Your task to perform on an android device: open chrome privacy settings Image 0: 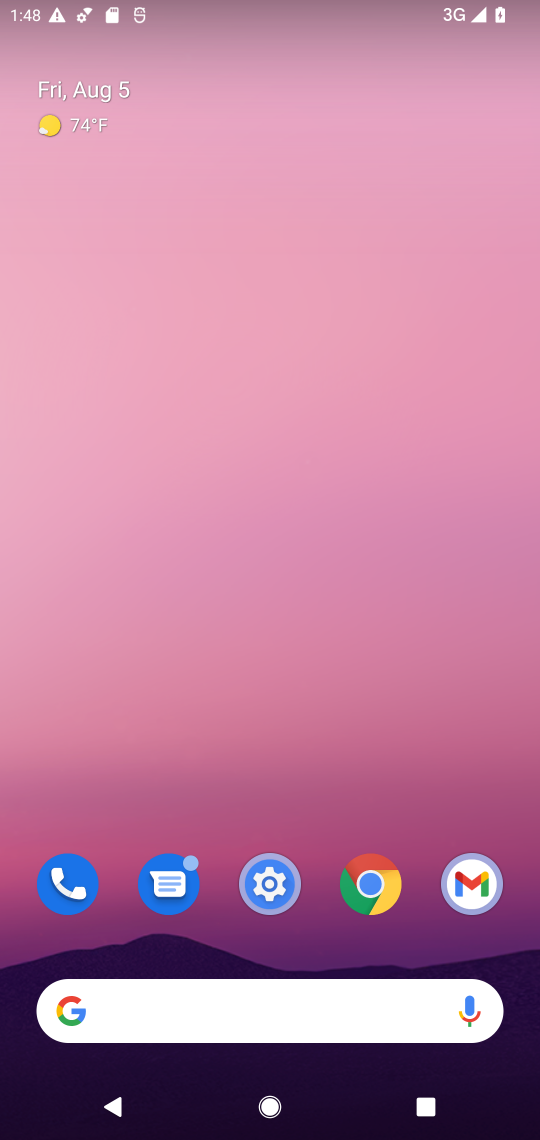
Step 0: drag from (458, 943) to (264, 66)
Your task to perform on an android device: open chrome privacy settings Image 1: 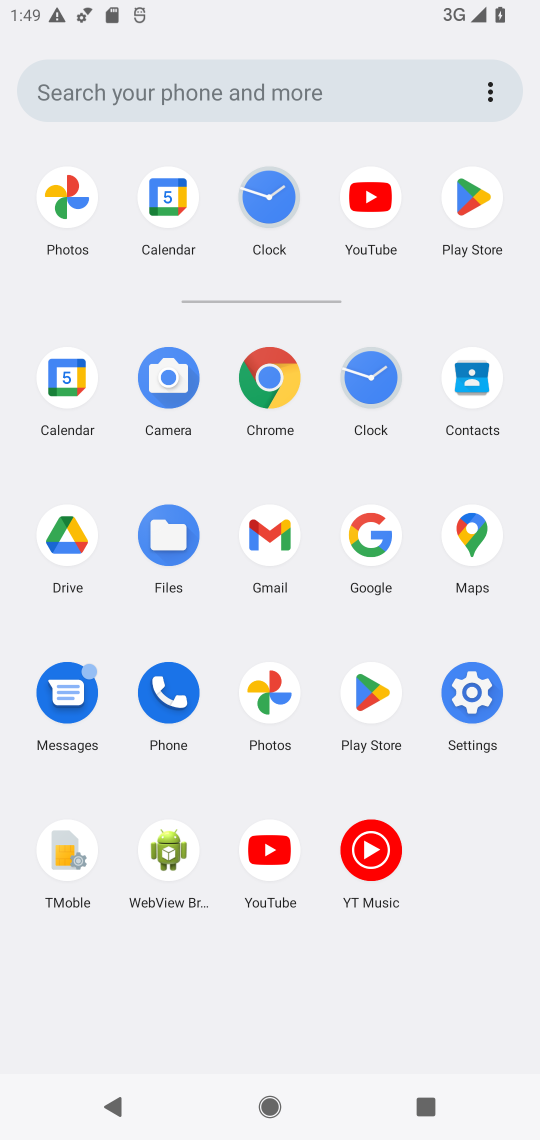
Step 1: click (271, 368)
Your task to perform on an android device: open chrome privacy settings Image 2: 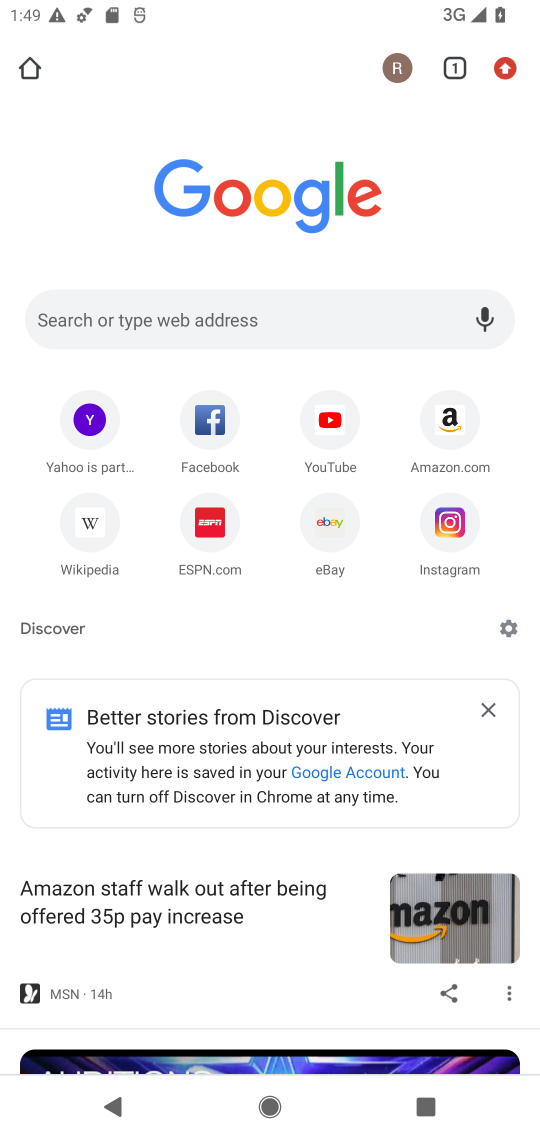
Step 2: click (502, 61)
Your task to perform on an android device: open chrome privacy settings Image 3: 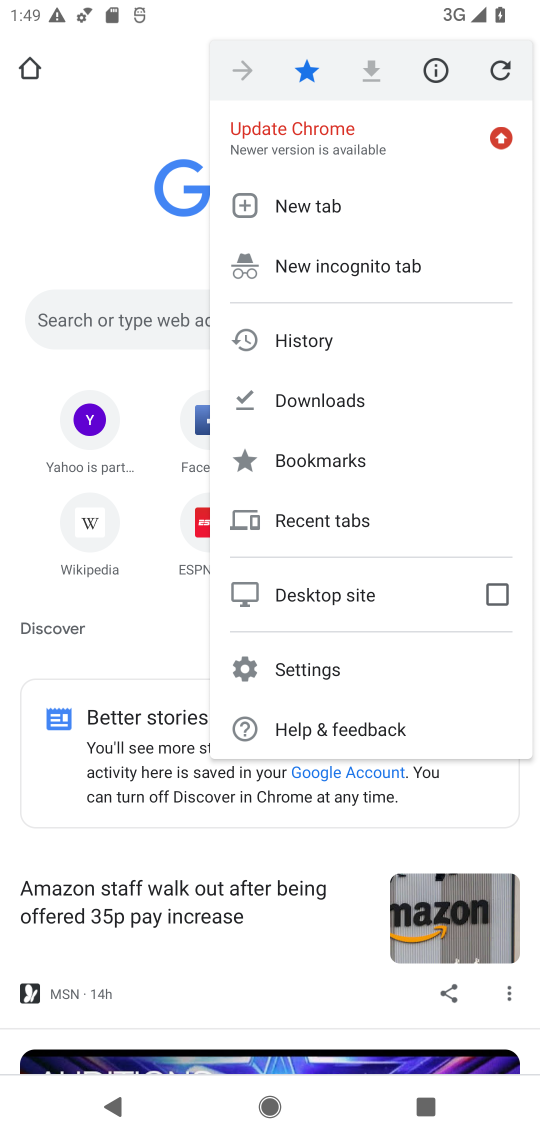
Step 3: click (351, 663)
Your task to perform on an android device: open chrome privacy settings Image 4: 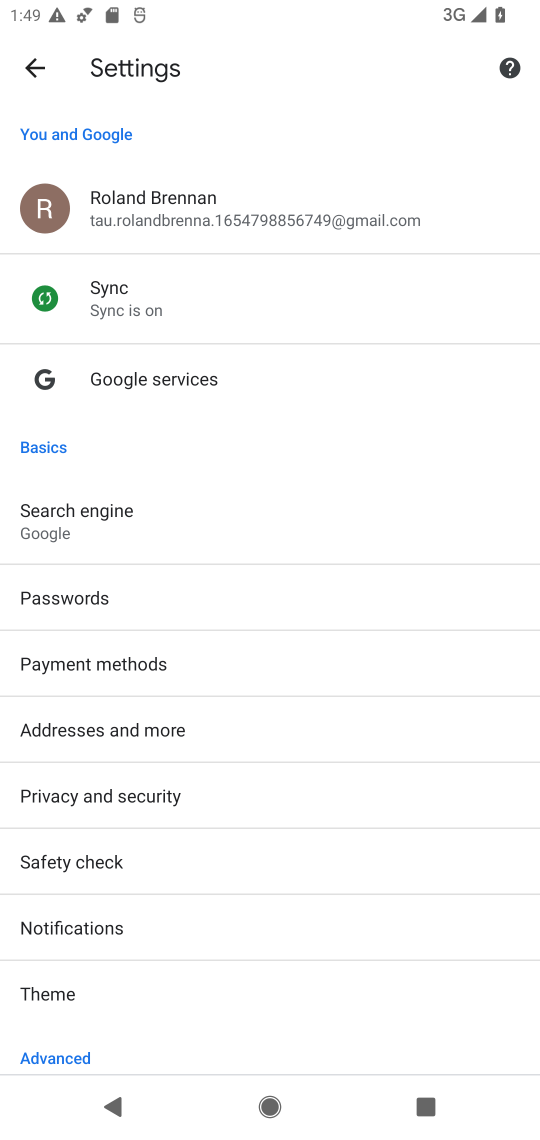
Step 4: drag from (93, 996) to (129, 508)
Your task to perform on an android device: open chrome privacy settings Image 5: 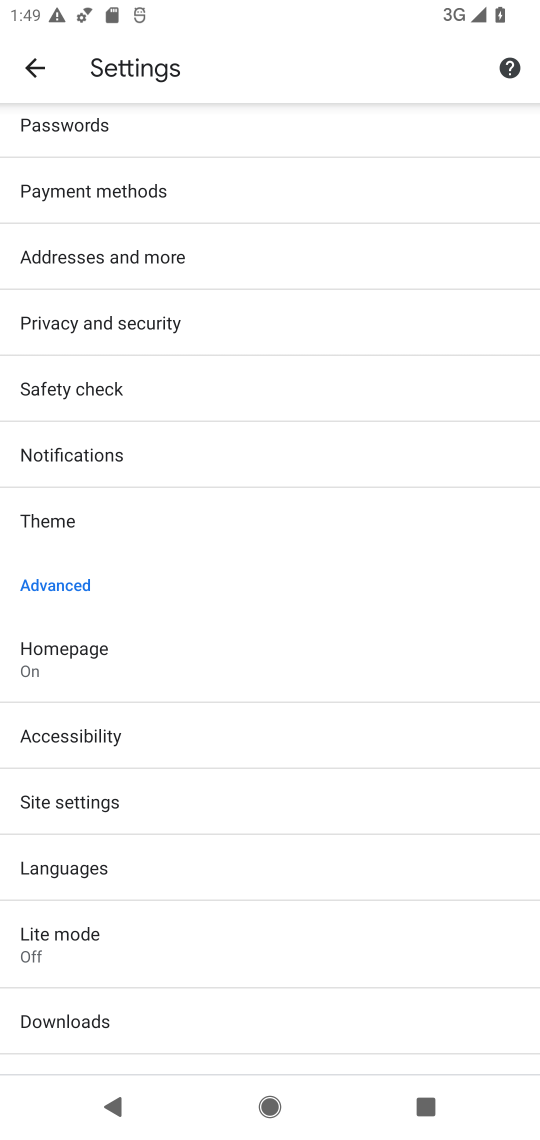
Step 5: click (97, 334)
Your task to perform on an android device: open chrome privacy settings Image 6: 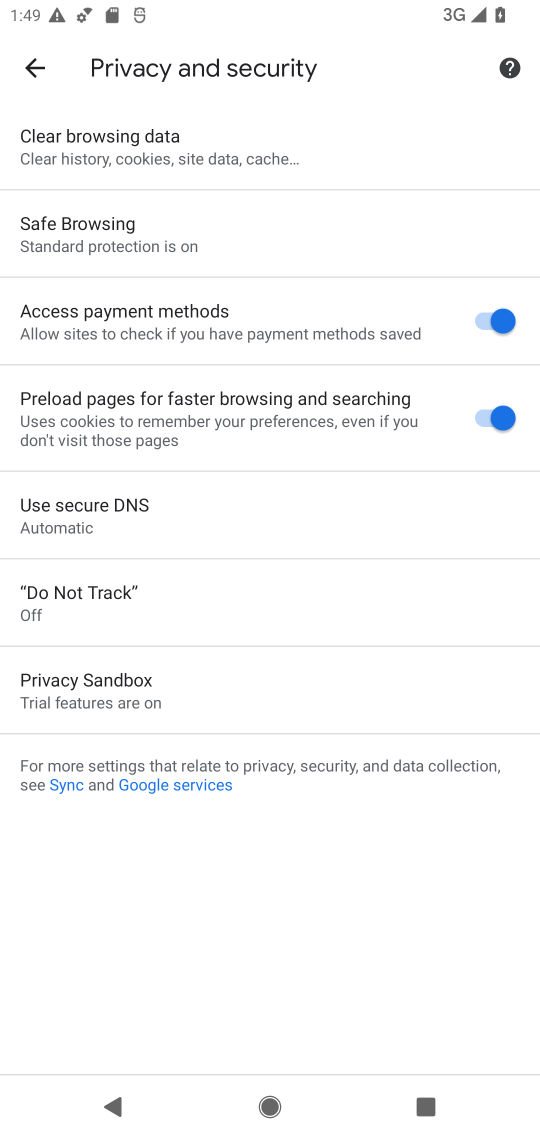
Step 6: task complete